Your task to perform on an android device: change alarm snooze length Image 0: 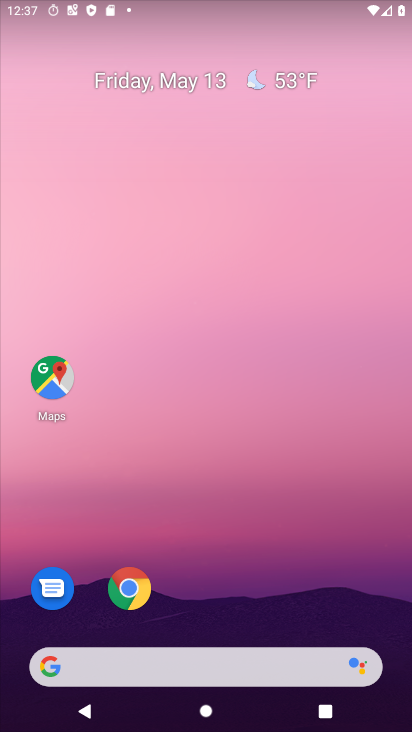
Step 0: drag from (278, 403) to (294, 1)
Your task to perform on an android device: change alarm snooze length Image 1: 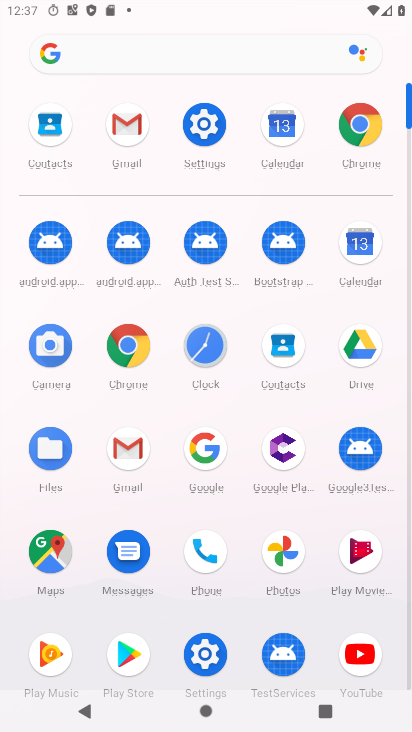
Step 1: click (211, 348)
Your task to perform on an android device: change alarm snooze length Image 2: 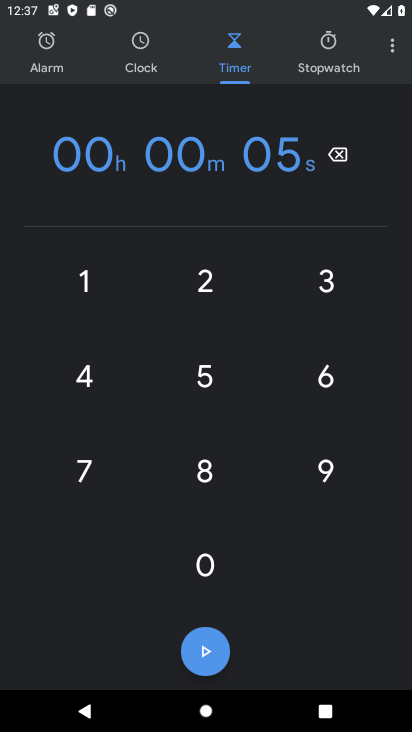
Step 2: click (394, 41)
Your task to perform on an android device: change alarm snooze length Image 3: 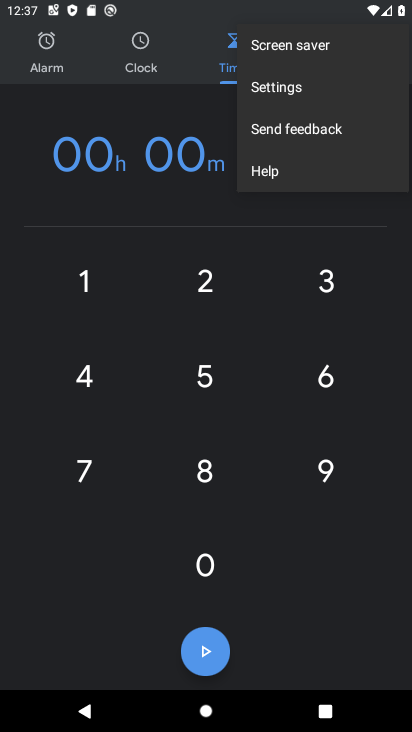
Step 3: click (293, 95)
Your task to perform on an android device: change alarm snooze length Image 4: 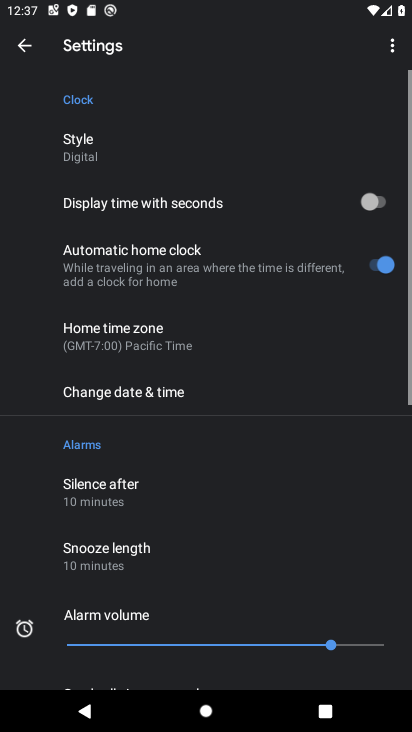
Step 4: drag from (249, 526) to (261, 7)
Your task to perform on an android device: change alarm snooze length Image 5: 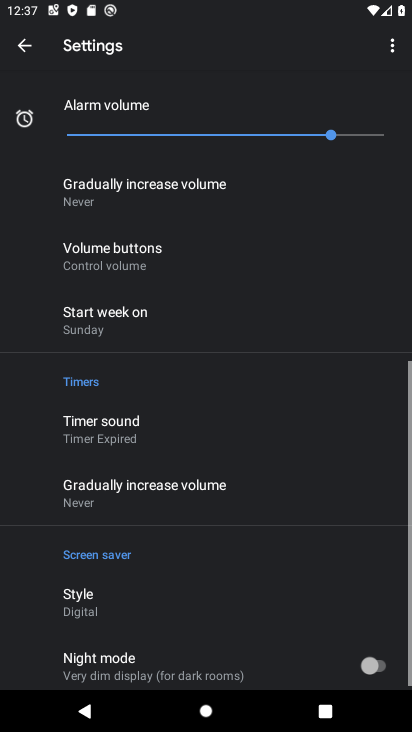
Step 5: drag from (226, 518) to (254, 570)
Your task to perform on an android device: change alarm snooze length Image 6: 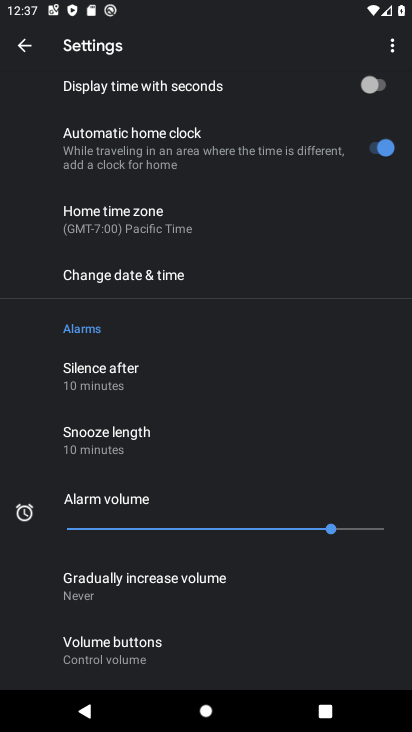
Step 6: click (132, 426)
Your task to perform on an android device: change alarm snooze length Image 7: 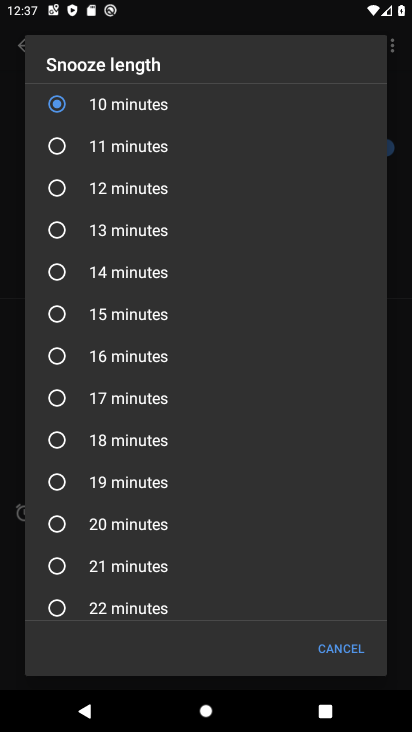
Step 7: click (156, 149)
Your task to perform on an android device: change alarm snooze length Image 8: 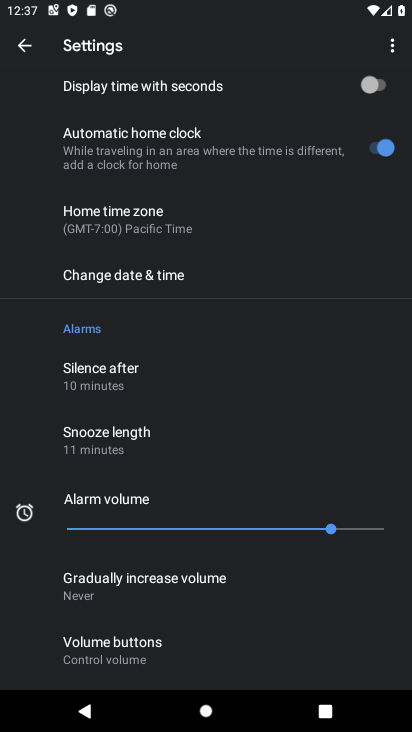
Step 8: task complete